Your task to perform on an android device: Open privacy settings Image 0: 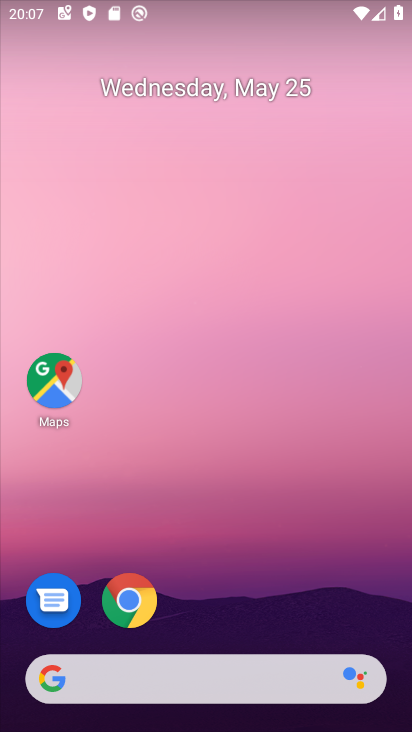
Step 0: drag from (357, 580) to (263, 173)
Your task to perform on an android device: Open privacy settings Image 1: 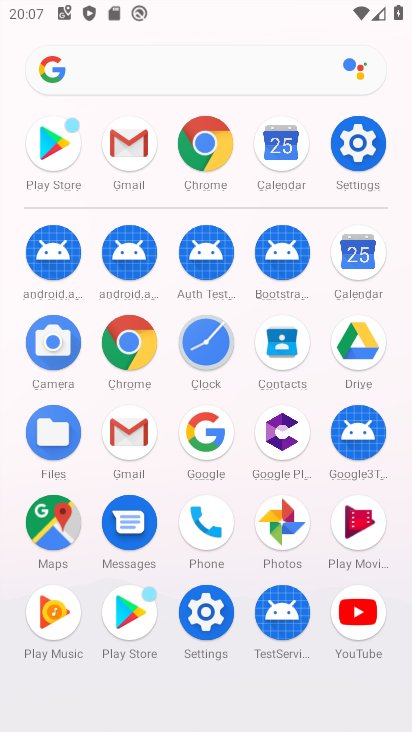
Step 1: click (364, 157)
Your task to perform on an android device: Open privacy settings Image 2: 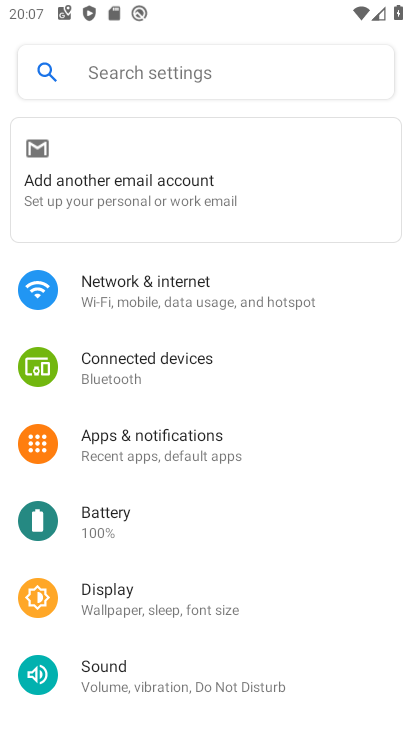
Step 2: drag from (275, 618) to (253, 314)
Your task to perform on an android device: Open privacy settings Image 3: 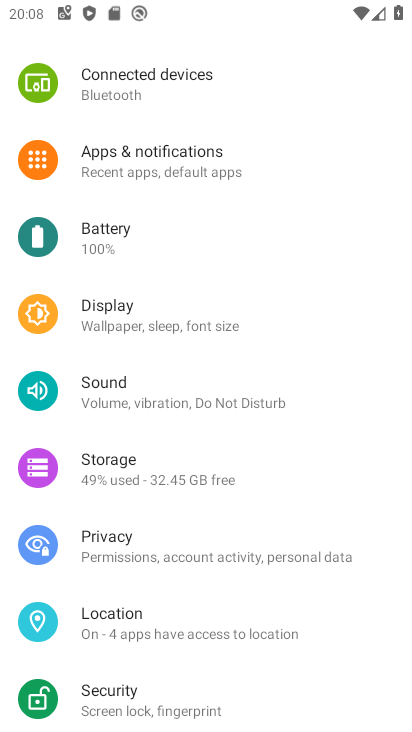
Step 3: click (227, 554)
Your task to perform on an android device: Open privacy settings Image 4: 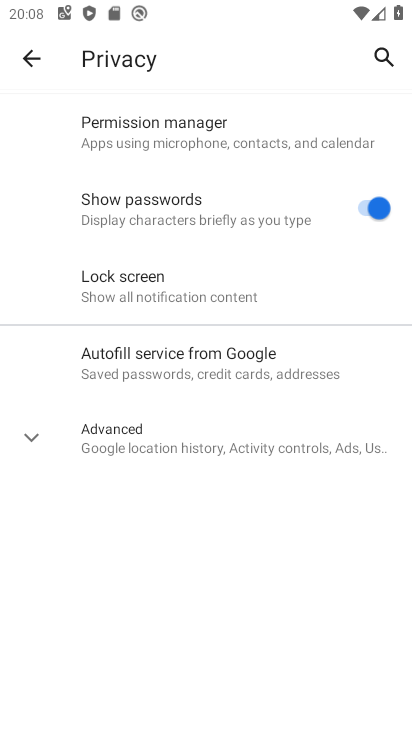
Step 4: task complete